Your task to perform on an android device: toggle notifications settings in the gmail app Image 0: 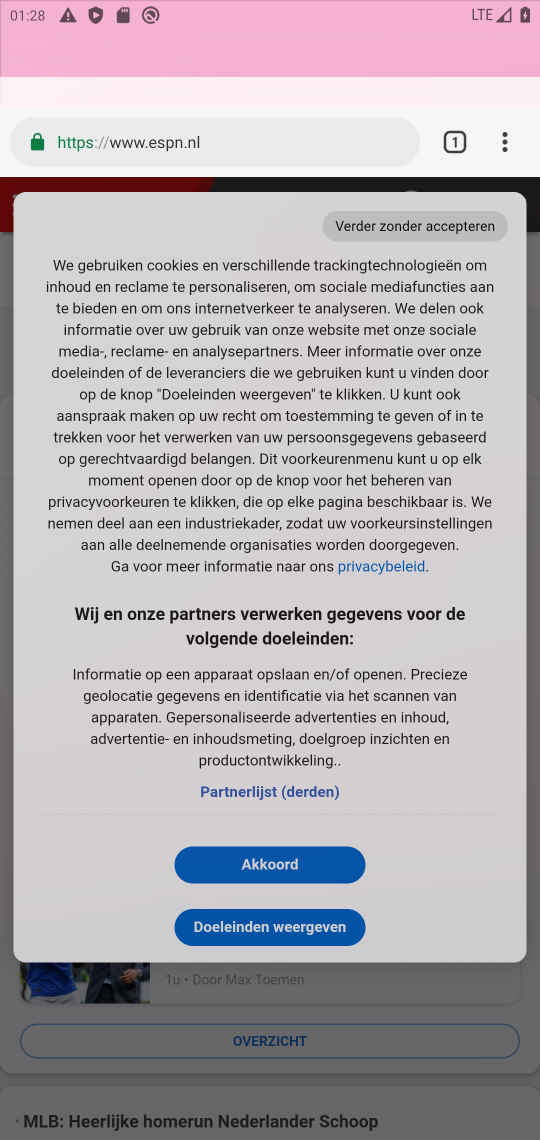
Step 0: press home button
Your task to perform on an android device: toggle notifications settings in the gmail app Image 1: 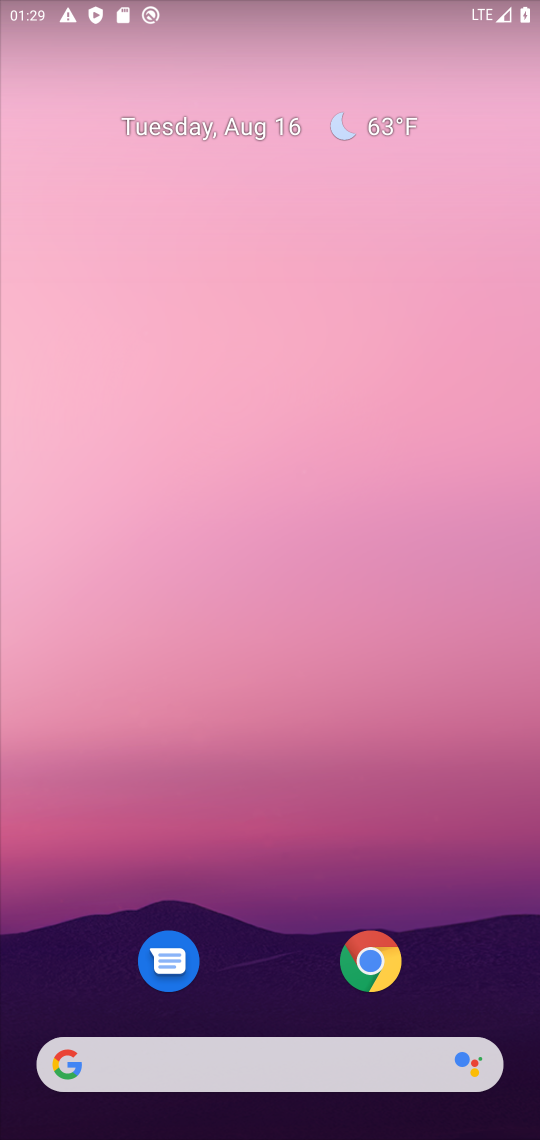
Step 1: drag from (306, 890) to (277, 190)
Your task to perform on an android device: toggle notifications settings in the gmail app Image 2: 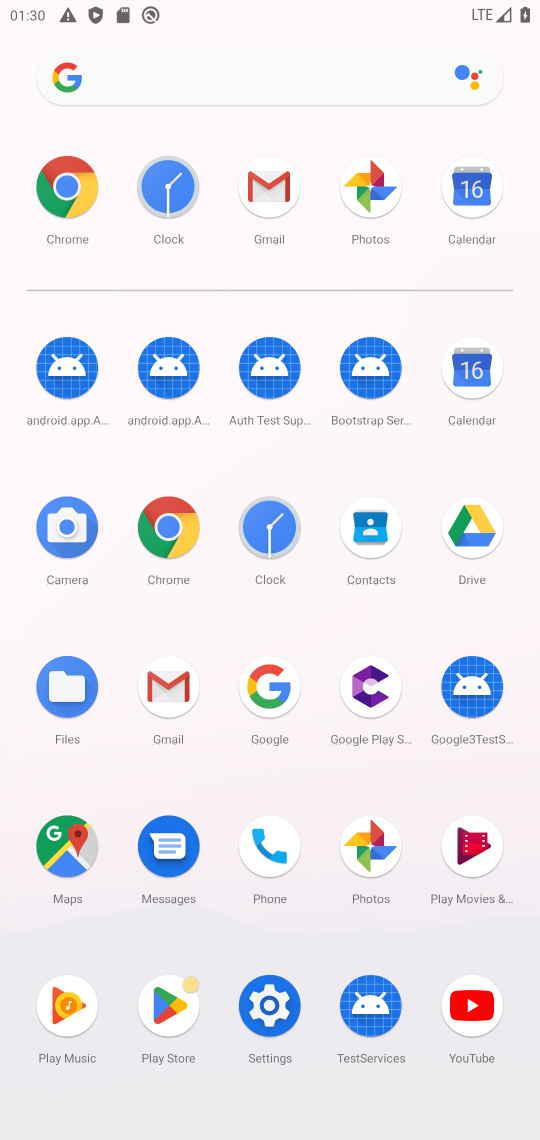
Step 2: click (174, 701)
Your task to perform on an android device: toggle notifications settings in the gmail app Image 3: 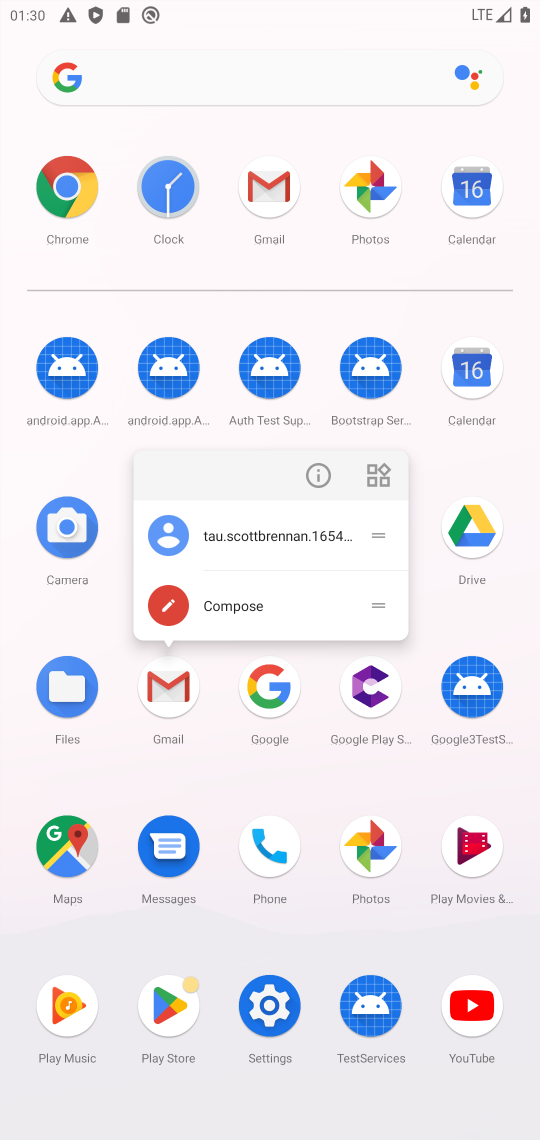
Step 3: click (319, 474)
Your task to perform on an android device: toggle notifications settings in the gmail app Image 4: 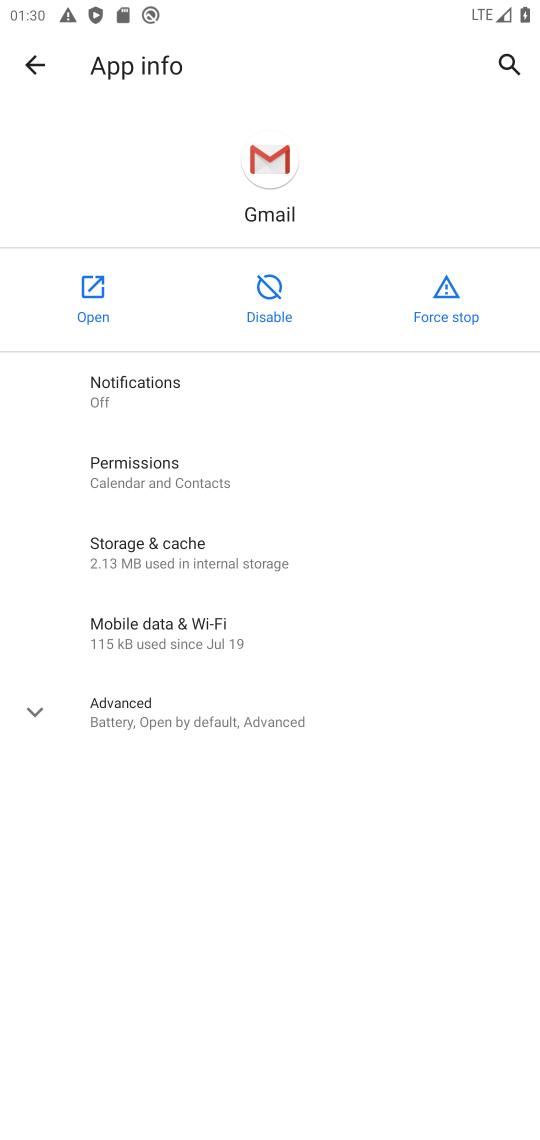
Step 4: click (193, 399)
Your task to perform on an android device: toggle notifications settings in the gmail app Image 5: 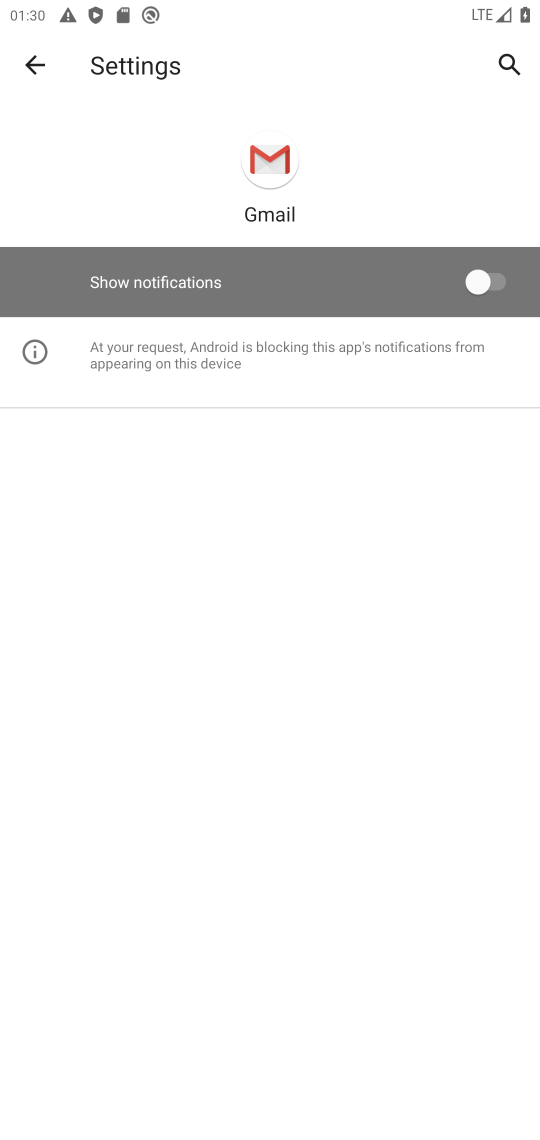
Step 5: click (283, 293)
Your task to perform on an android device: toggle notifications settings in the gmail app Image 6: 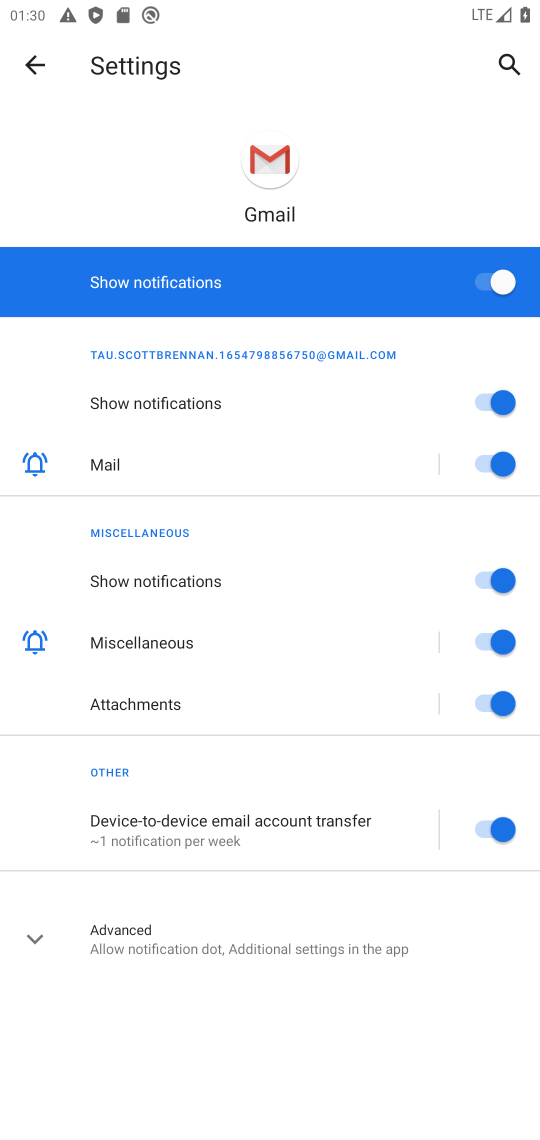
Step 6: task complete